Your task to perform on an android device: Go to battery settings Image 0: 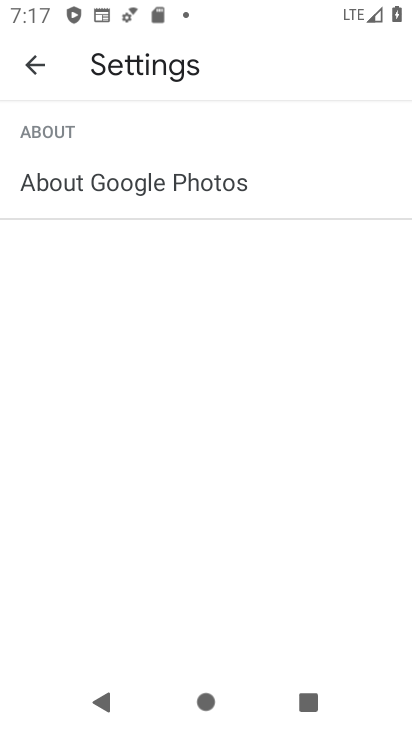
Step 0: press home button
Your task to perform on an android device: Go to battery settings Image 1: 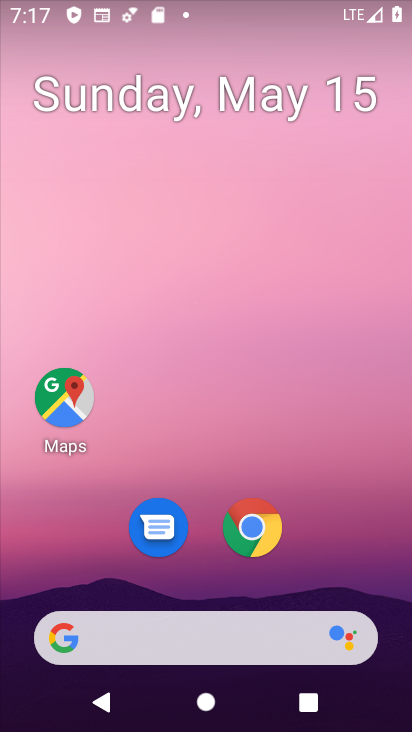
Step 1: drag from (361, 560) to (391, 48)
Your task to perform on an android device: Go to battery settings Image 2: 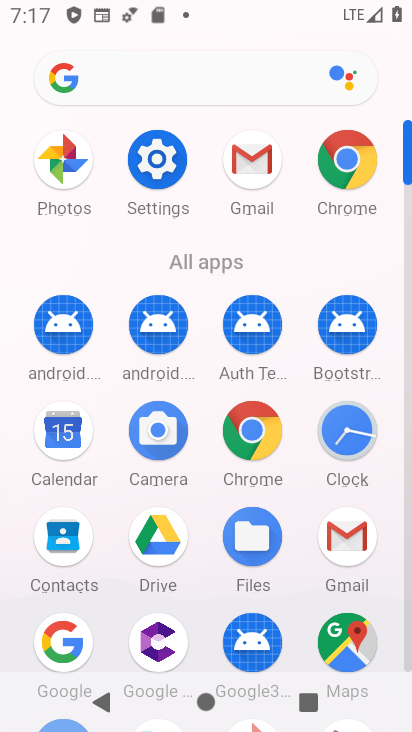
Step 2: click (164, 167)
Your task to perform on an android device: Go to battery settings Image 3: 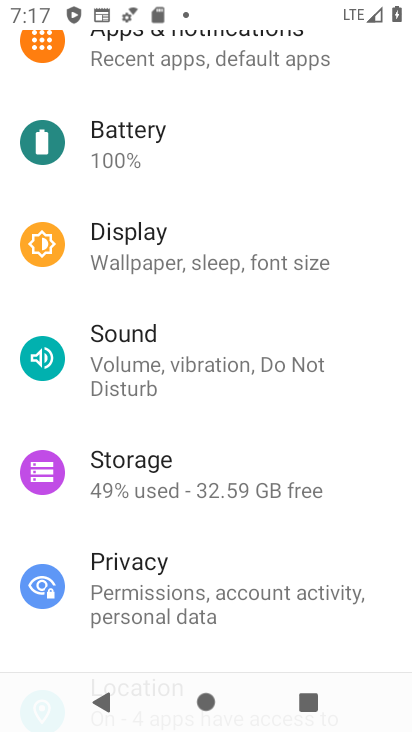
Step 3: click (151, 161)
Your task to perform on an android device: Go to battery settings Image 4: 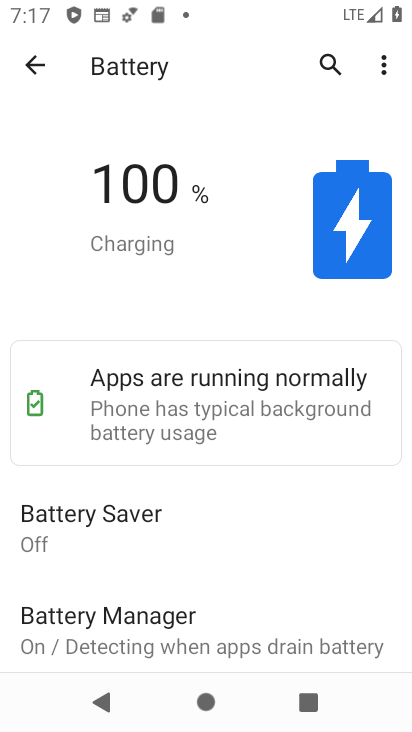
Step 4: task complete